Your task to perform on an android device: Set the phone to "Do not disturb". Image 0: 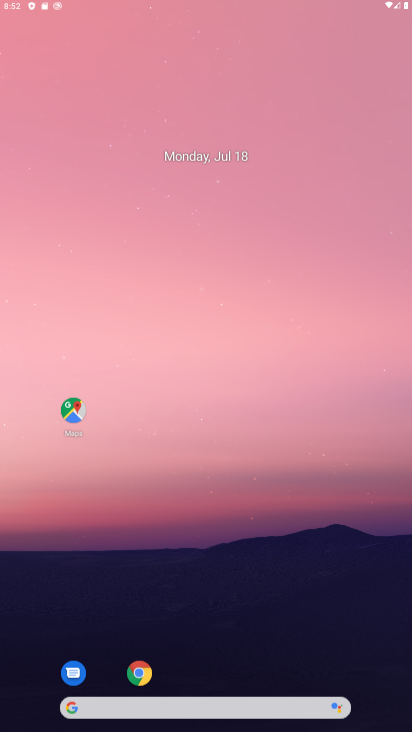
Step 0: press home button
Your task to perform on an android device: Set the phone to "Do not disturb". Image 1: 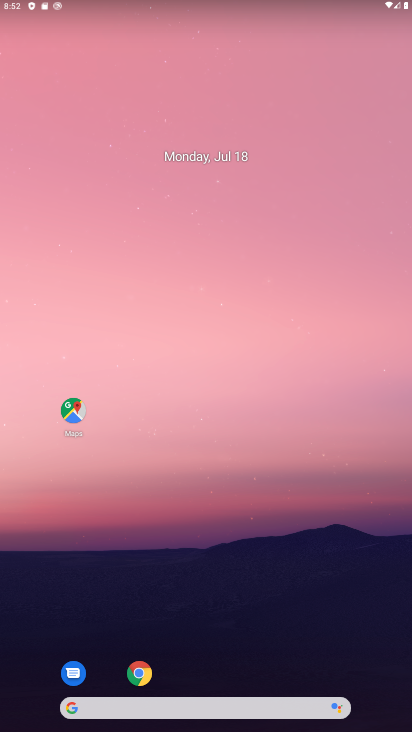
Step 1: drag from (205, 0) to (223, 470)
Your task to perform on an android device: Set the phone to "Do not disturb". Image 2: 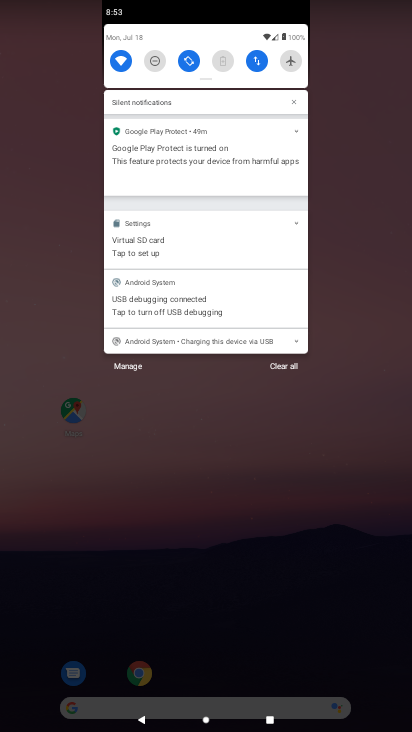
Step 2: click (154, 58)
Your task to perform on an android device: Set the phone to "Do not disturb". Image 3: 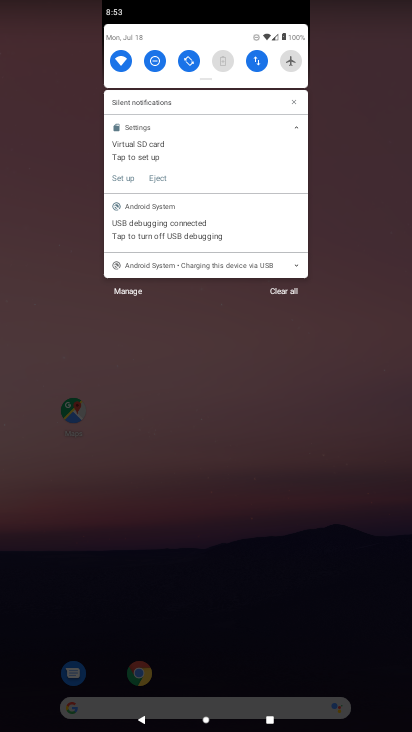
Step 3: task complete